Your task to perform on an android device: When is my next appointment? Image 0: 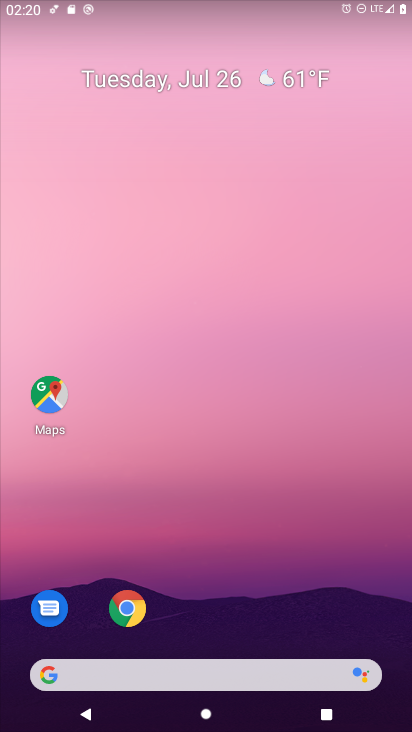
Step 0: drag from (28, 717) to (227, 244)
Your task to perform on an android device: When is my next appointment? Image 1: 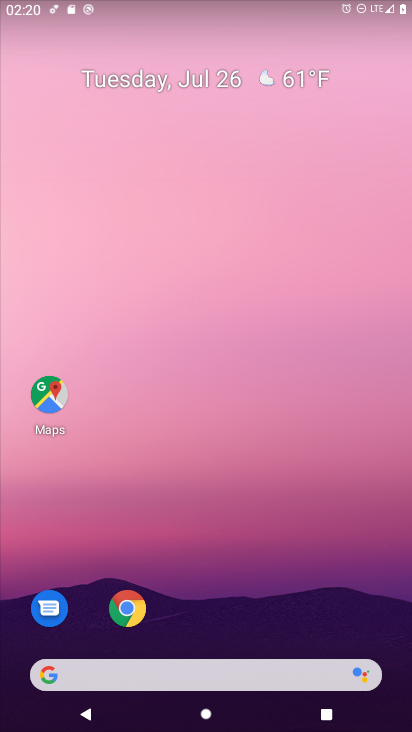
Step 1: drag from (107, 398) to (288, 117)
Your task to perform on an android device: When is my next appointment? Image 2: 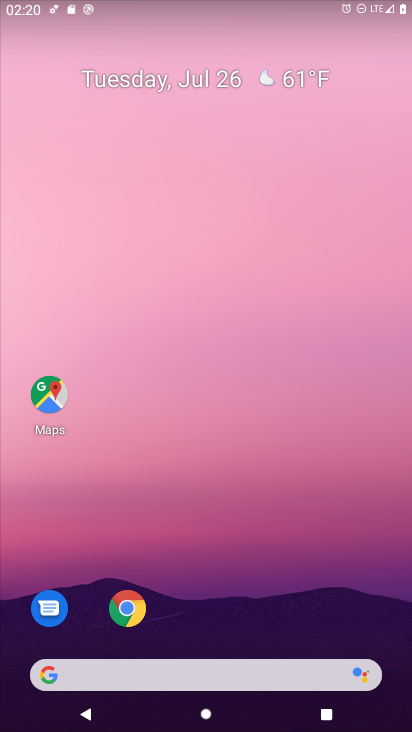
Step 2: drag from (21, 513) to (131, 177)
Your task to perform on an android device: When is my next appointment? Image 3: 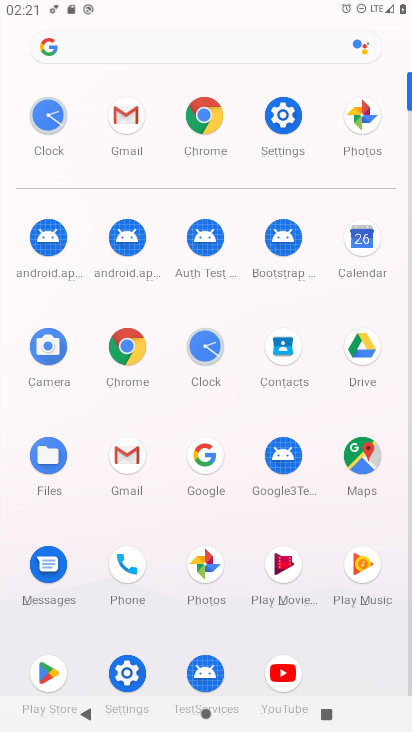
Step 3: click (360, 251)
Your task to perform on an android device: When is my next appointment? Image 4: 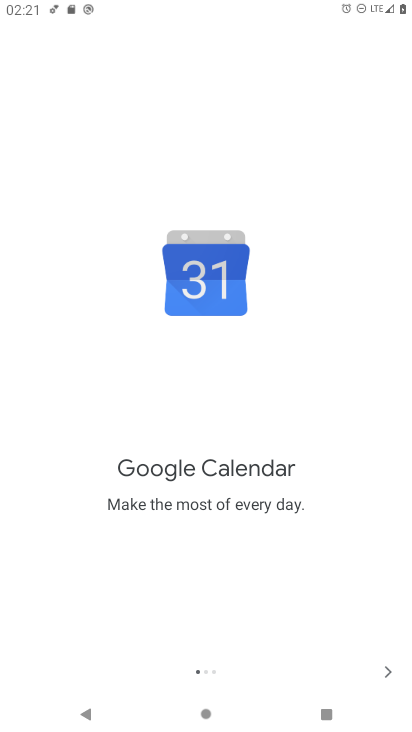
Step 4: click (390, 672)
Your task to perform on an android device: When is my next appointment? Image 5: 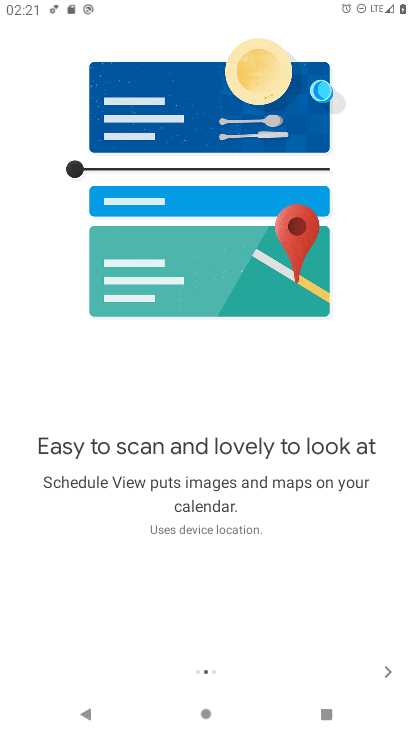
Step 5: click (390, 672)
Your task to perform on an android device: When is my next appointment? Image 6: 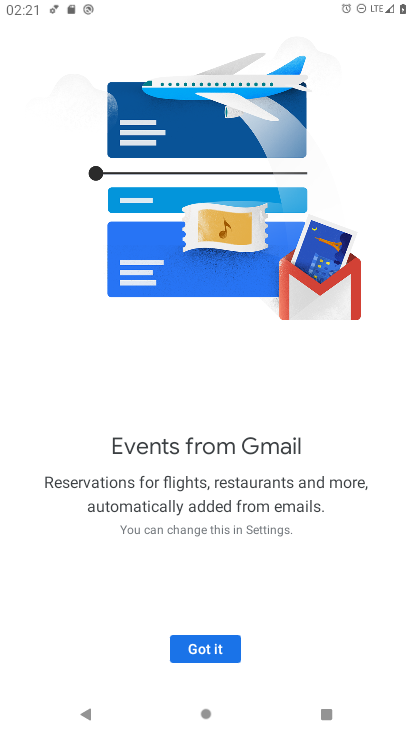
Step 6: click (203, 647)
Your task to perform on an android device: When is my next appointment? Image 7: 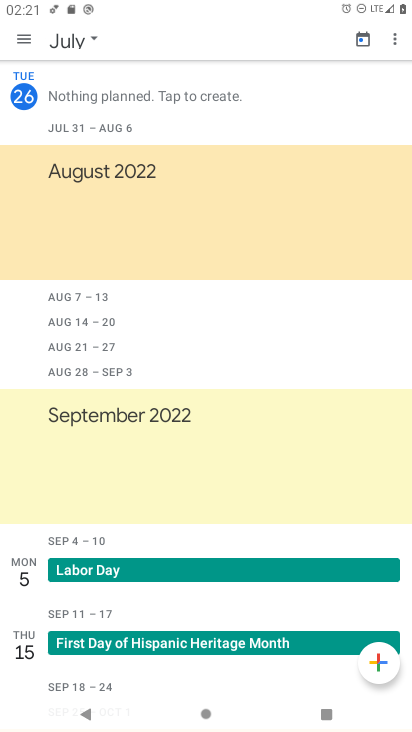
Step 7: click (91, 46)
Your task to perform on an android device: When is my next appointment? Image 8: 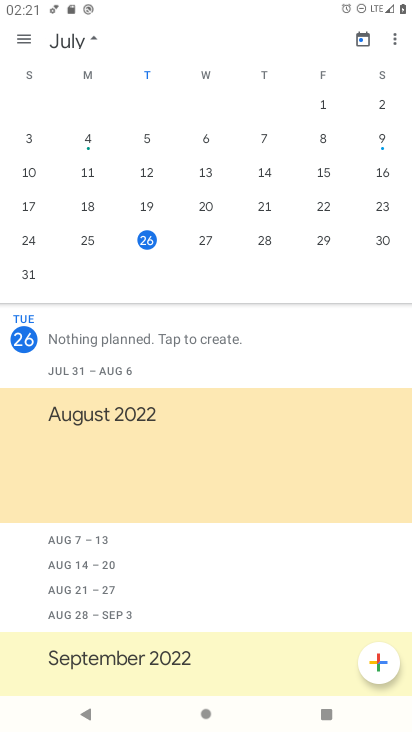
Step 8: task complete